Your task to perform on an android device: toggle data saver in the chrome app Image 0: 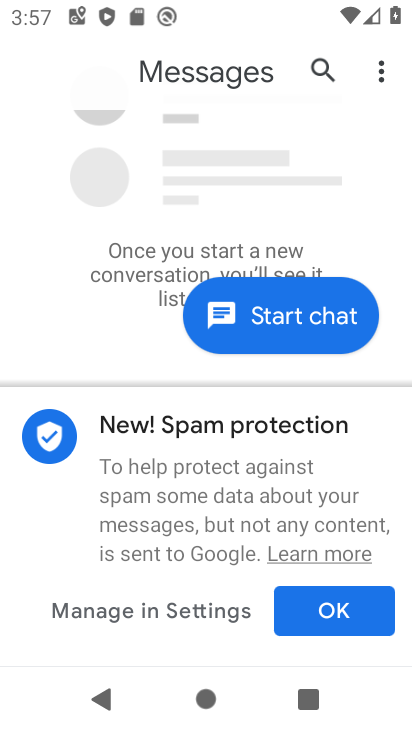
Step 0: press home button
Your task to perform on an android device: toggle data saver in the chrome app Image 1: 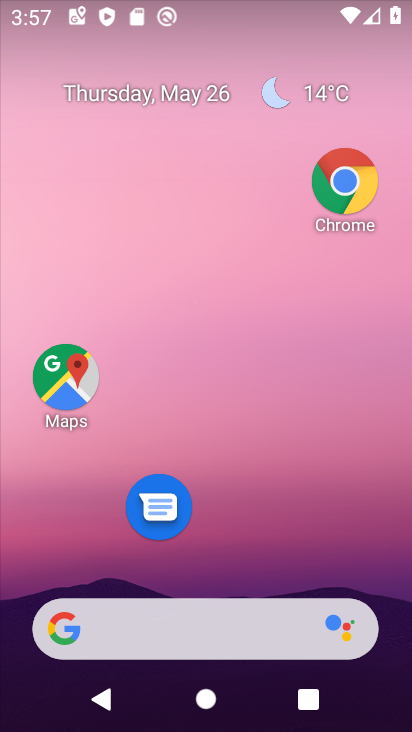
Step 1: drag from (274, 556) to (274, 99)
Your task to perform on an android device: toggle data saver in the chrome app Image 2: 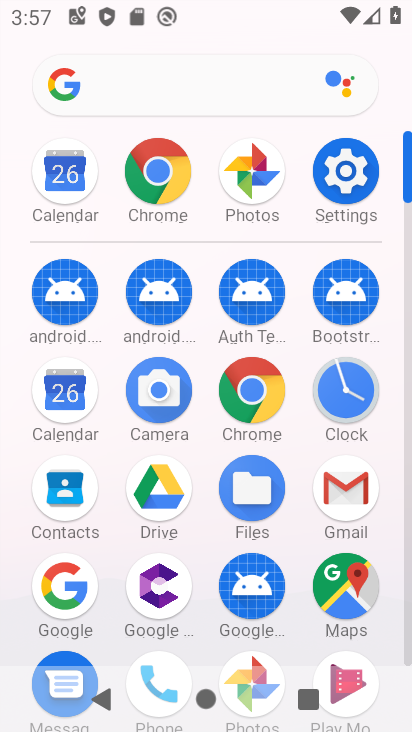
Step 2: click (250, 371)
Your task to perform on an android device: toggle data saver in the chrome app Image 3: 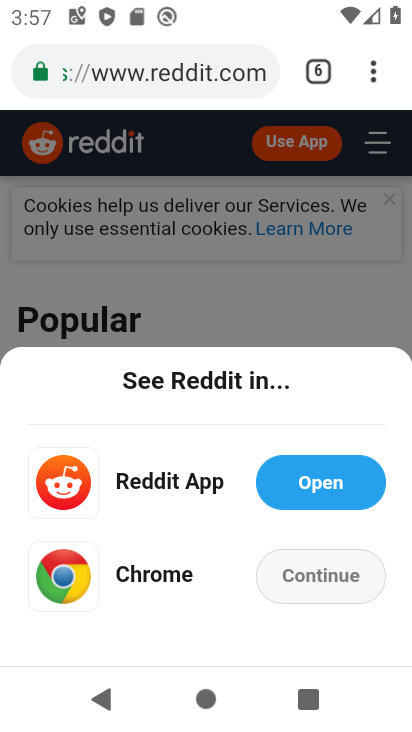
Step 3: drag from (372, 67) to (176, 489)
Your task to perform on an android device: toggle data saver in the chrome app Image 4: 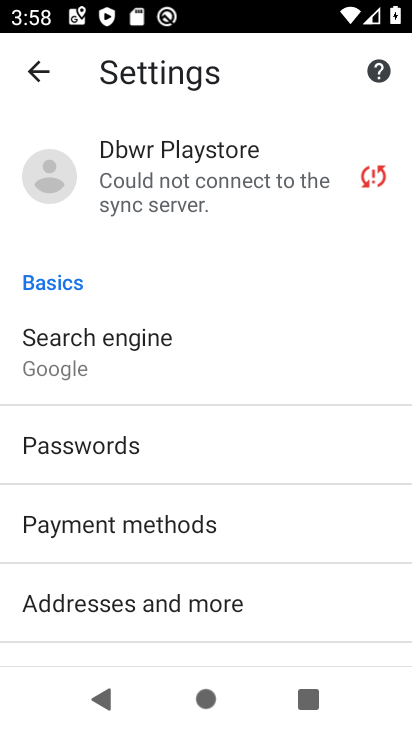
Step 4: drag from (272, 536) to (289, 309)
Your task to perform on an android device: toggle data saver in the chrome app Image 5: 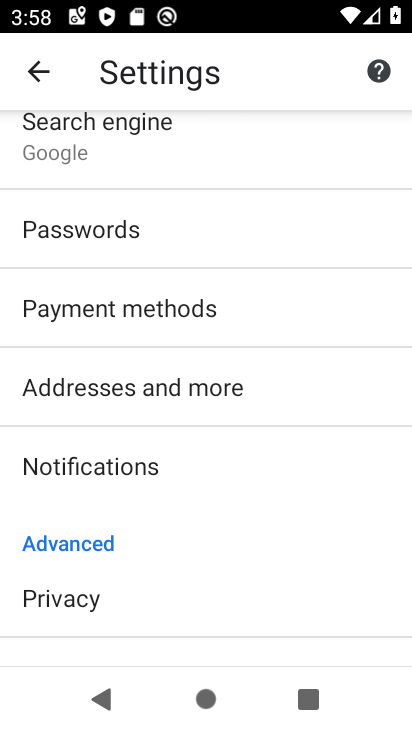
Step 5: drag from (267, 584) to (331, 207)
Your task to perform on an android device: toggle data saver in the chrome app Image 6: 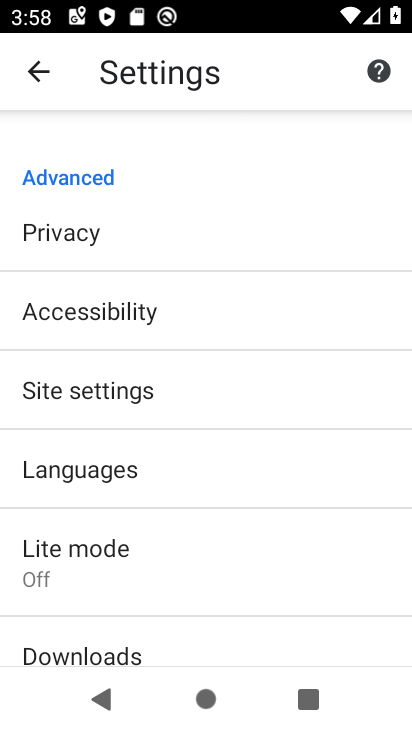
Step 6: click (92, 539)
Your task to perform on an android device: toggle data saver in the chrome app Image 7: 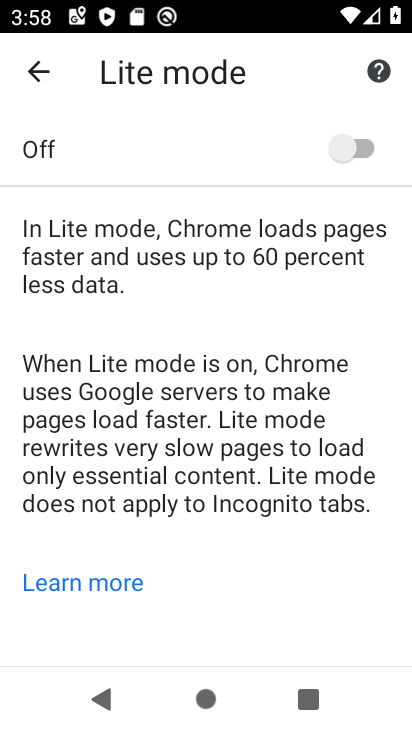
Step 7: click (368, 139)
Your task to perform on an android device: toggle data saver in the chrome app Image 8: 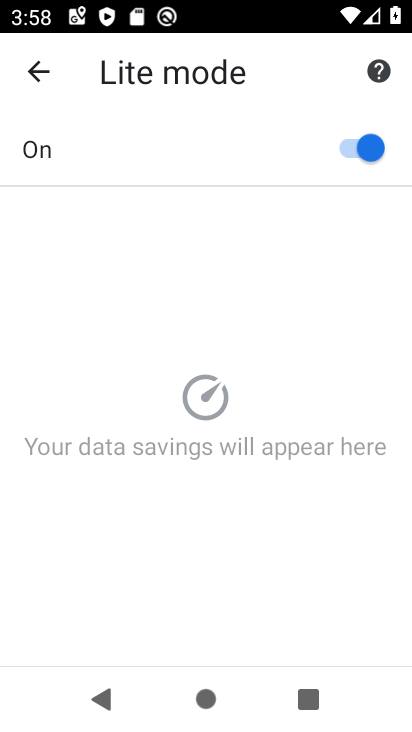
Step 8: task complete